Your task to perform on an android device: Search for seafood restaurants on Google Maps Image 0: 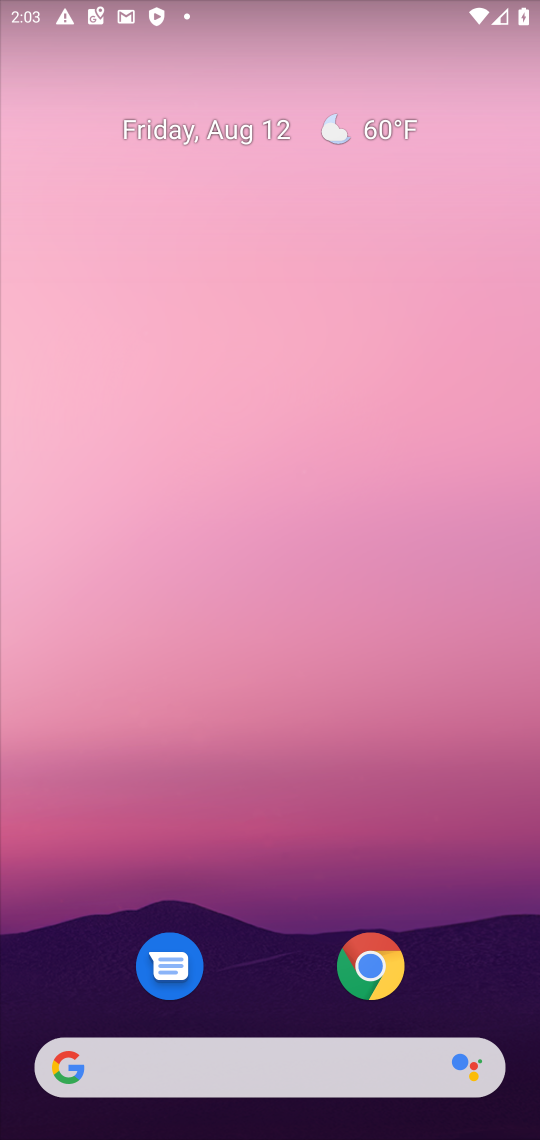
Step 0: drag from (293, 936) to (291, 160)
Your task to perform on an android device: Search for seafood restaurants on Google Maps Image 1: 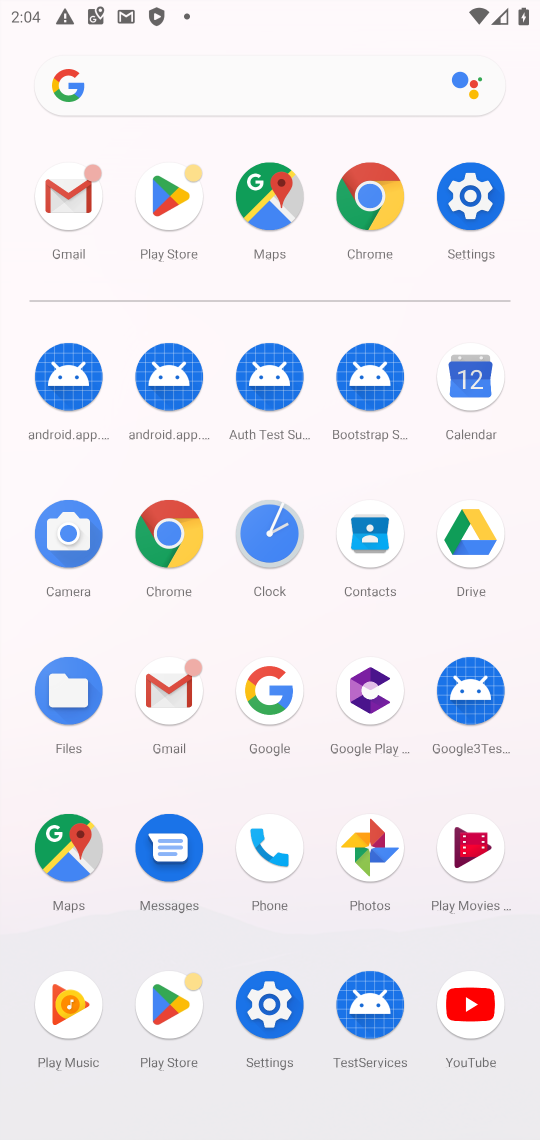
Step 1: click (63, 855)
Your task to perform on an android device: Search for seafood restaurants on Google Maps Image 2: 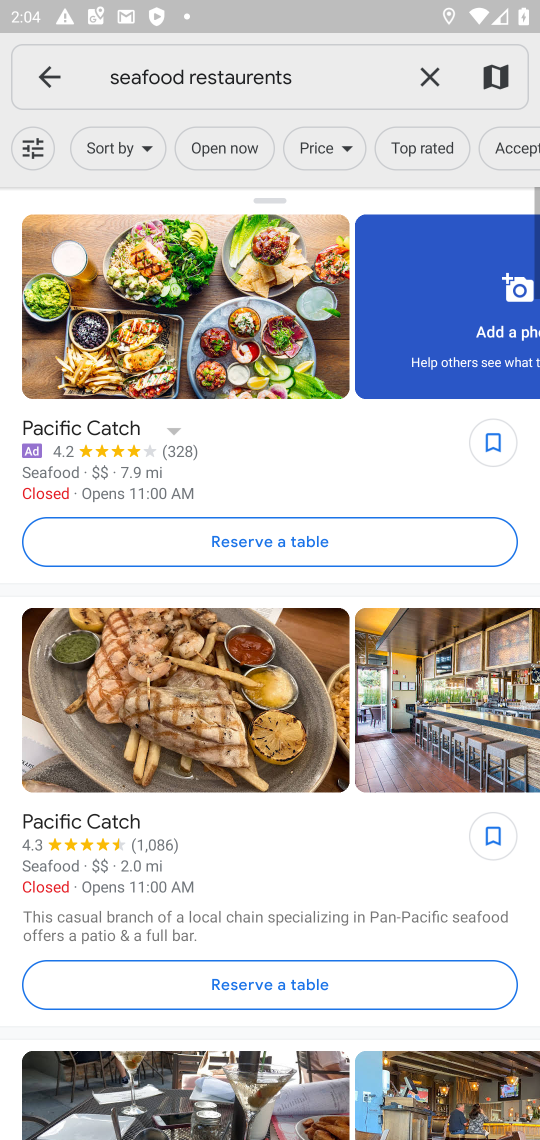
Step 2: task complete